Your task to perform on an android device: Open Wikipedia Image 0: 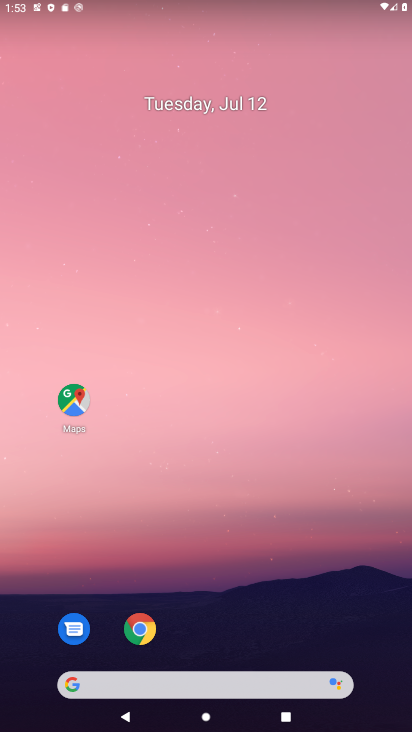
Step 0: drag from (390, 636) to (348, 101)
Your task to perform on an android device: Open Wikipedia Image 1: 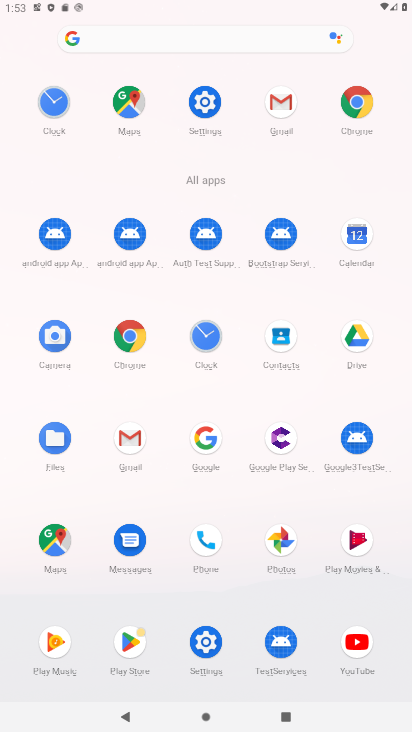
Step 1: click (348, 107)
Your task to perform on an android device: Open Wikipedia Image 2: 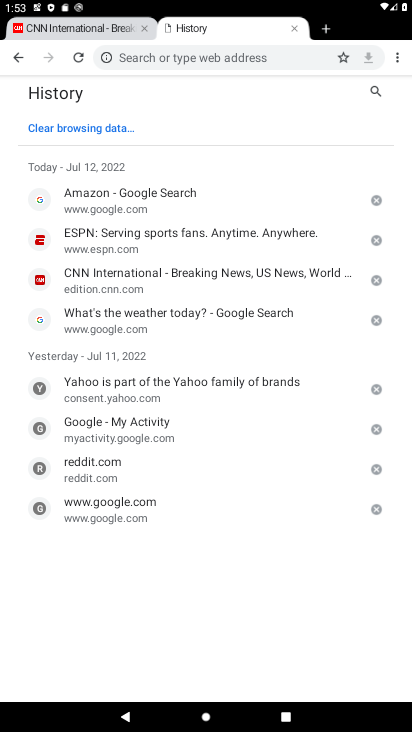
Step 2: click (327, 30)
Your task to perform on an android device: Open Wikipedia Image 3: 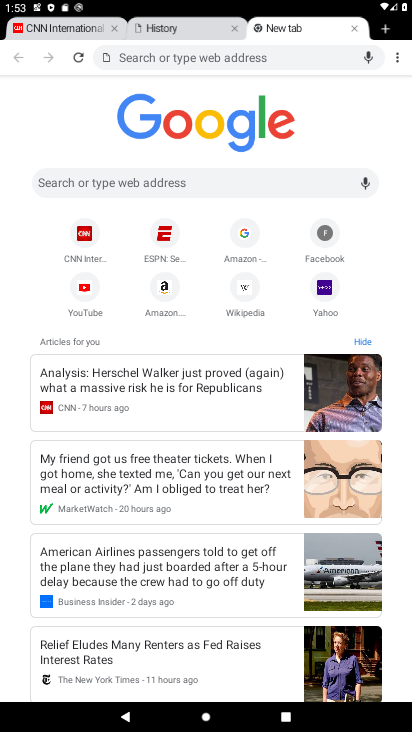
Step 3: click (242, 289)
Your task to perform on an android device: Open Wikipedia Image 4: 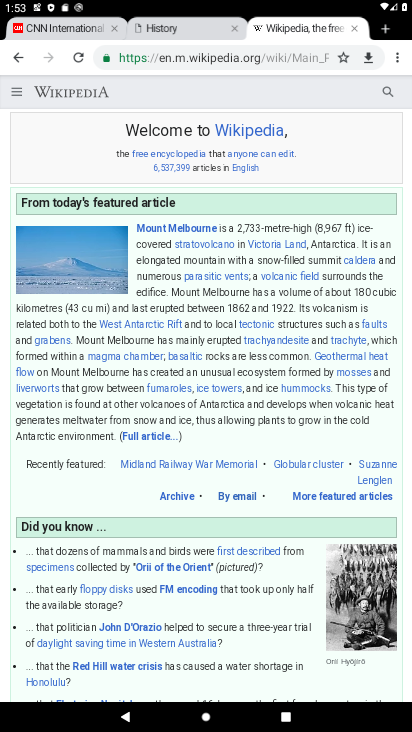
Step 4: task complete